Your task to perform on an android device: Search for seafood restaurants on Google Maps Image 0: 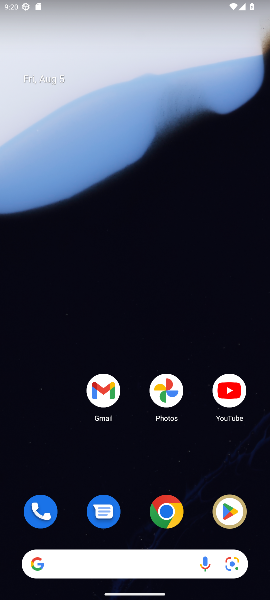
Step 0: drag from (129, 568) to (121, 296)
Your task to perform on an android device: Search for seafood restaurants on Google Maps Image 1: 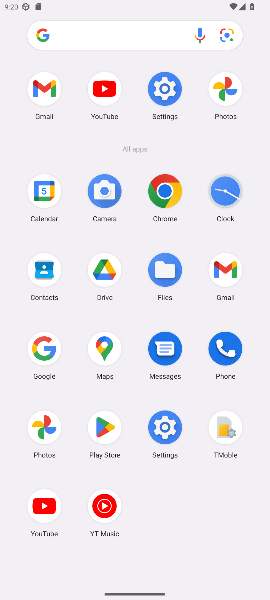
Step 1: click (104, 345)
Your task to perform on an android device: Search for seafood restaurants on Google Maps Image 2: 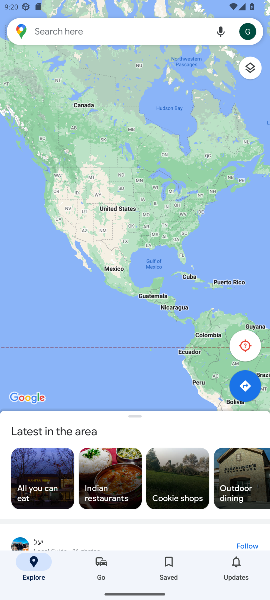
Step 2: click (157, 36)
Your task to perform on an android device: Search for seafood restaurants on Google Maps Image 3: 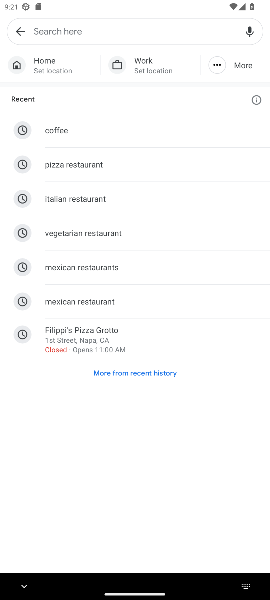
Step 3: type "seafood restaurants"
Your task to perform on an android device: Search for seafood restaurants on Google Maps Image 4: 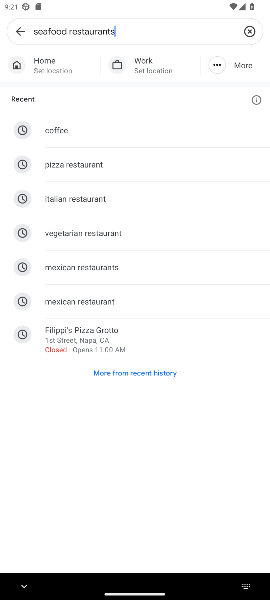
Step 4: type ""
Your task to perform on an android device: Search for seafood restaurants on Google Maps Image 5: 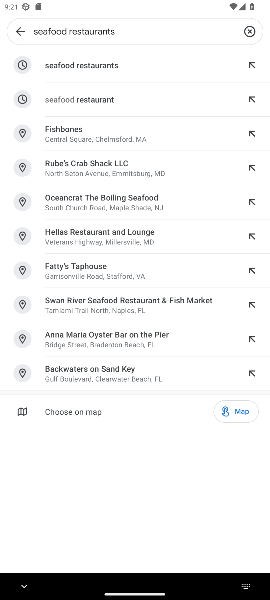
Step 5: click (80, 98)
Your task to perform on an android device: Search for seafood restaurants on Google Maps Image 6: 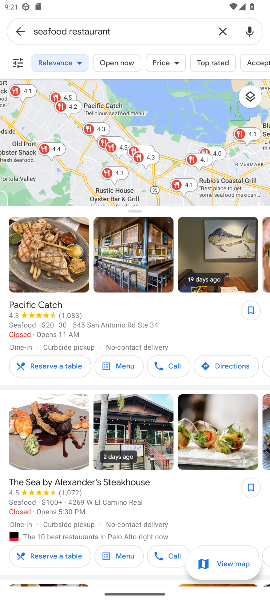
Step 6: task complete